Your task to perform on an android device: choose inbox layout in the gmail app Image 0: 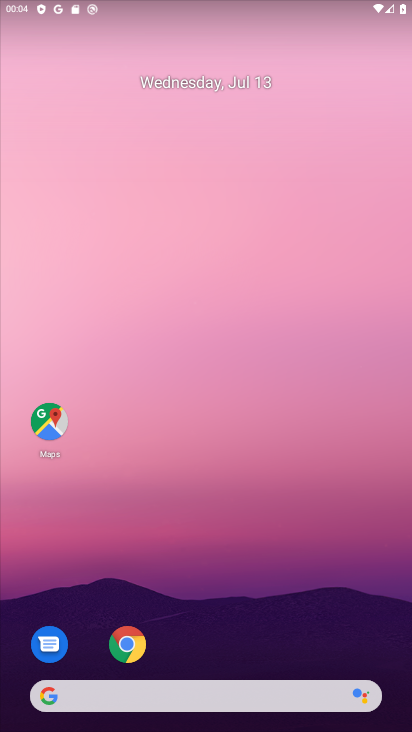
Step 0: drag from (264, 609) to (390, 260)
Your task to perform on an android device: choose inbox layout in the gmail app Image 1: 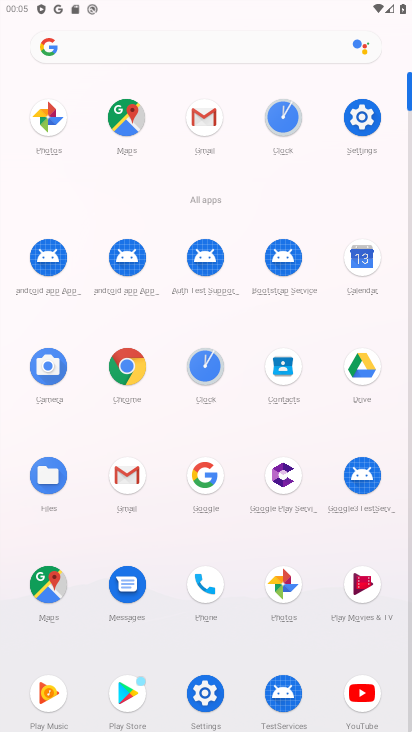
Step 1: click (200, 123)
Your task to perform on an android device: choose inbox layout in the gmail app Image 2: 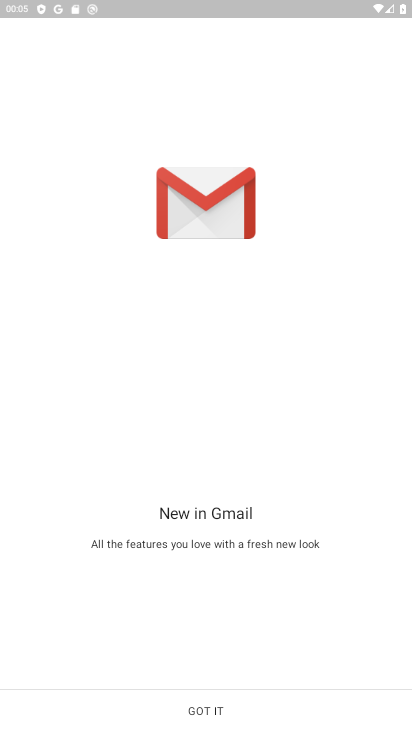
Step 2: click (180, 700)
Your task to perform on an android device: choose inbox layout in the gmail app Image 3: 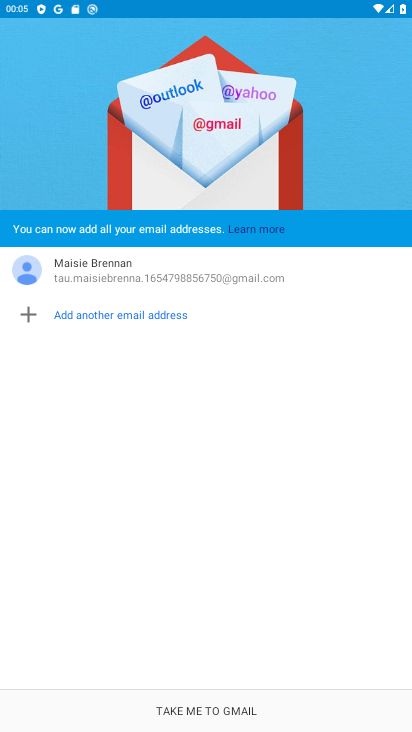
Step 3: click (180, 700)
Your task to perform on an android device: choose inbox layout in the gmail app Image 4: 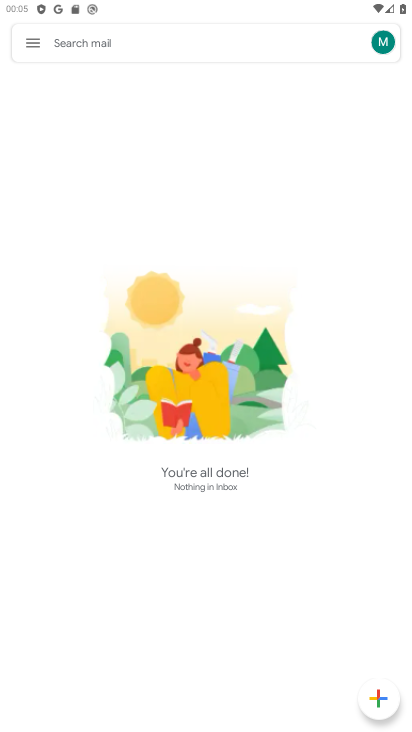
Step 4: click (27, 46)
Your task to perform on an android device: choose inbox layout in the gmail app Image 5: 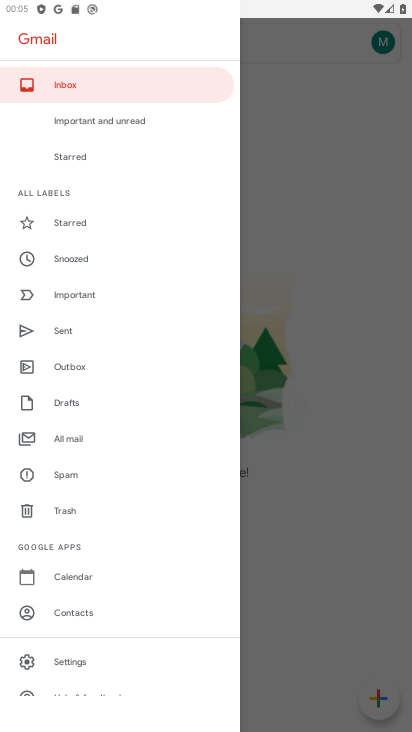
Step 5: click (73, 657)
Your task to perform on an android device: choose inbox layout in the gmail app Image 6: 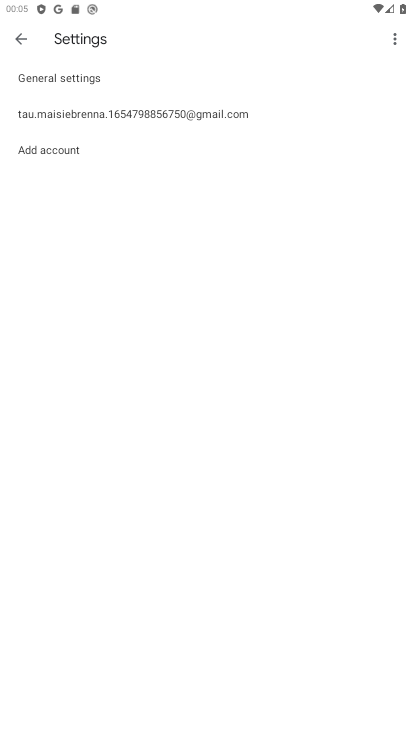
Step 6: click (49, 117)
Your task to perform on an android device: choose inbox layout in the gmail app Image 7: 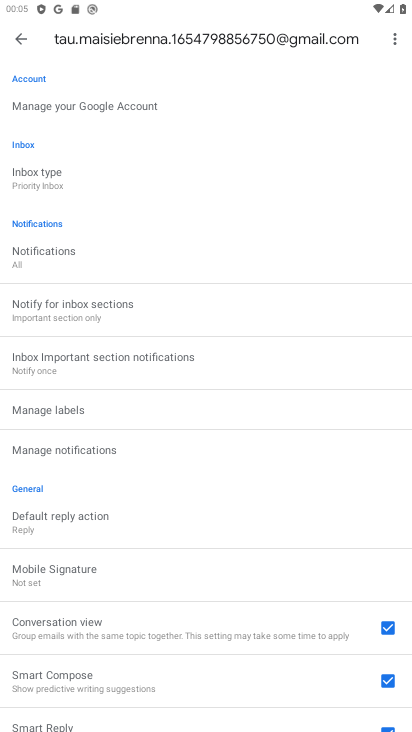
Step 7: click (68, 178)
Your task to perform on an android device: choose inbox layout in the gmail app Image 8: 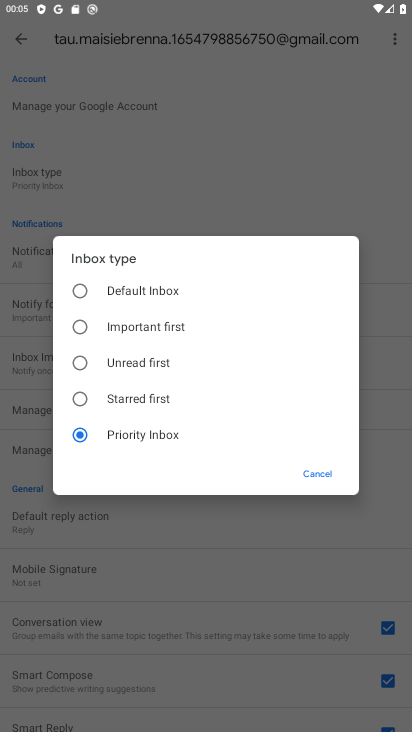
Step 8: click (104, 291)
Your task to perform on an android device: choose inbox layout in the gmail app Image 9: 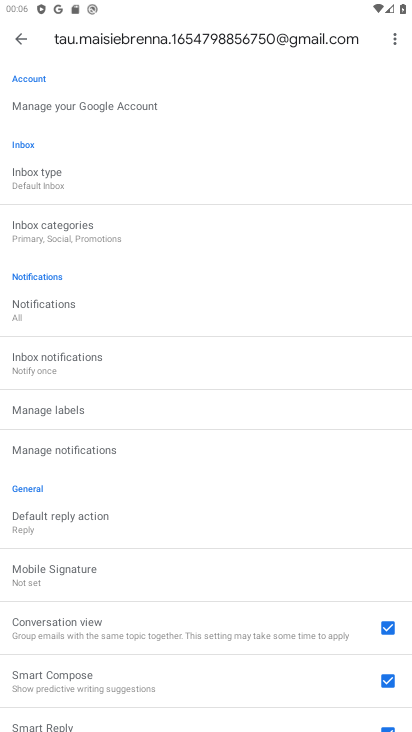
Step 9: task complete